Your task to perform on an android device: turn on airplane mode Image 0: 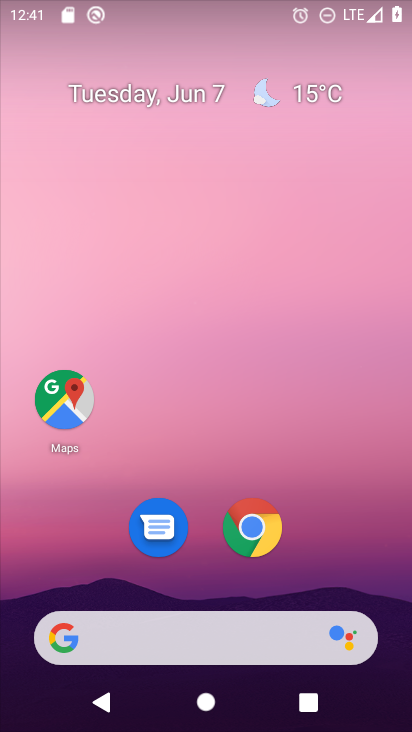
Step 0: drag from (335, 534) to (335, 156)
Your task to perform on an android device: turn on airplane mode Image 1: 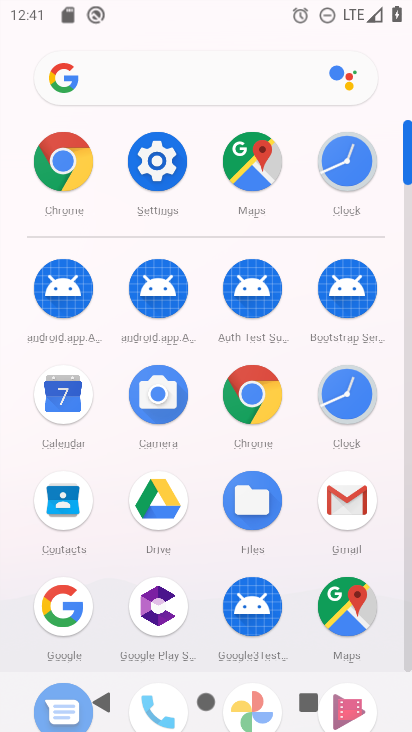
Step 1: click (170, 167)
Your task to perform on an android device: turn on airplane mode Image 2: 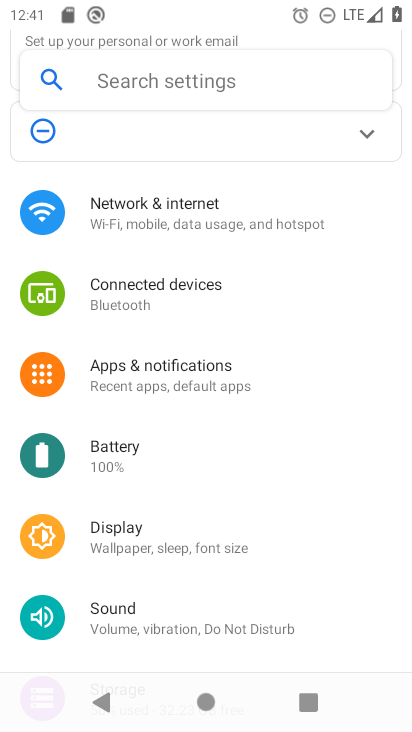
Step 2: drag from (351, 439) to (349, 317)
Your task to perform on an android device: turn on airplane mode Image 3: 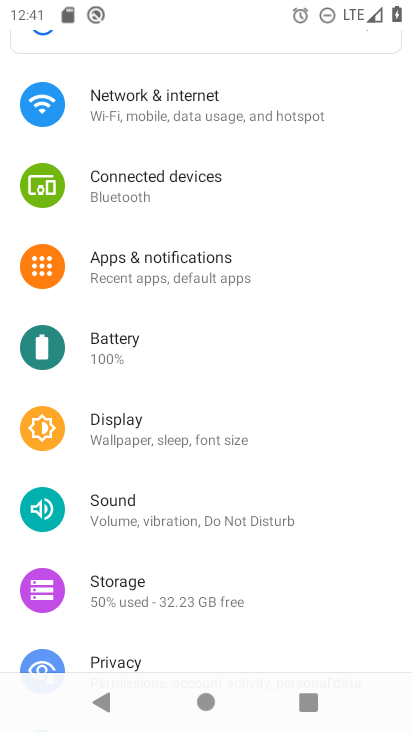
Step 3: drag from (353, 482) to (349, 345)
Your task to perform on an android device: turn on airplane mode Image 4: 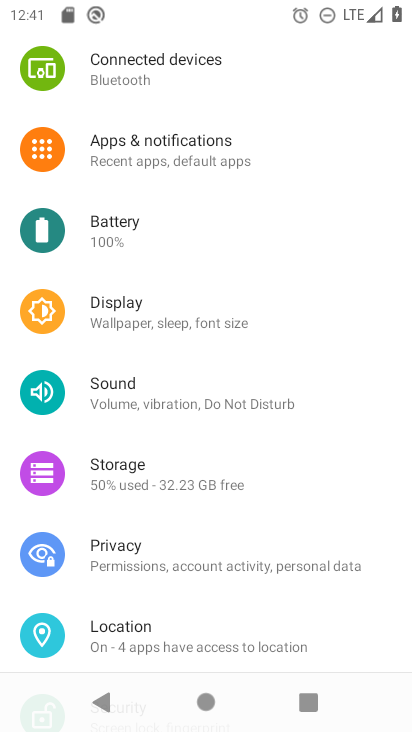
Step 4: drag from (347, 510) to (351, 332)
Your task to perform on an android device: turn on airplane mode Image 5: 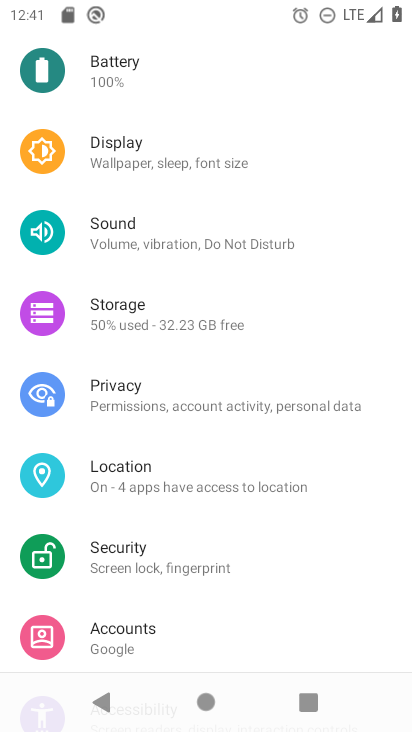
Step 5: drag from (357, 483) to (360, 294)
Your task to perform on an android device: turn on airplane mode Image 6: 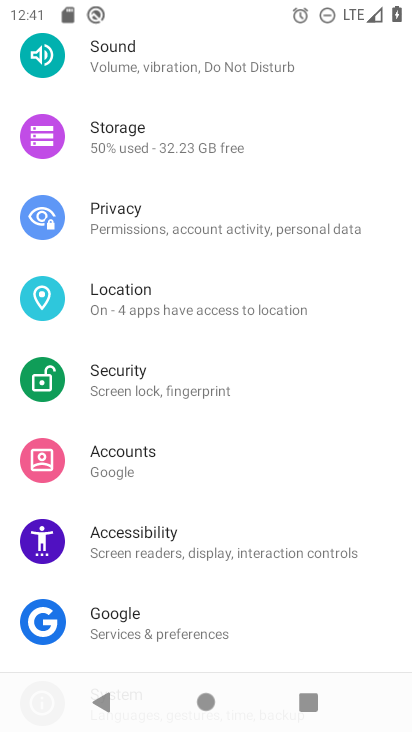
Step 6: drag from (356, 470) to (341, 283)
Your task to perform on an android device: turn on airplane mode Image 7: 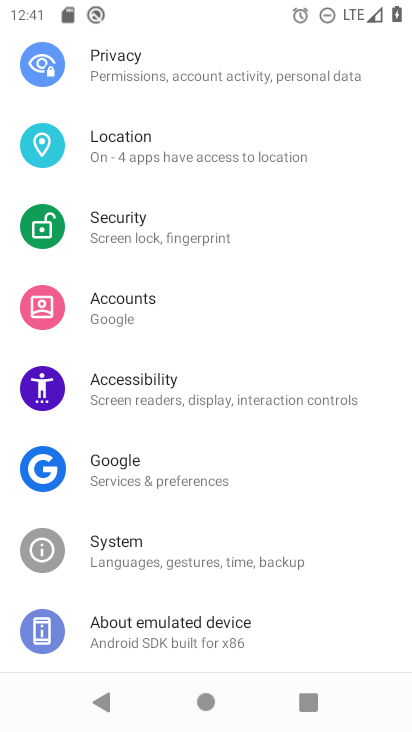
Step 7: drag from (340, 507) to (352, 275)
Your task to perform on an android device: turn on airplane mode Image 8: 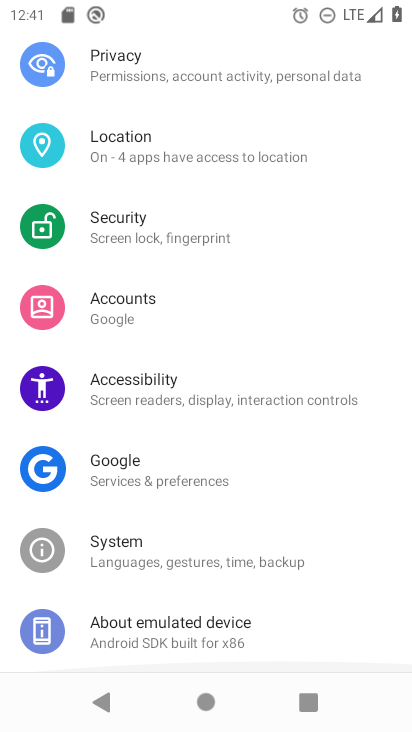
Step 8: drag from (360, 211) to (362, 419)
Your task to perform on an android device: turn on airplane mode Image 9: 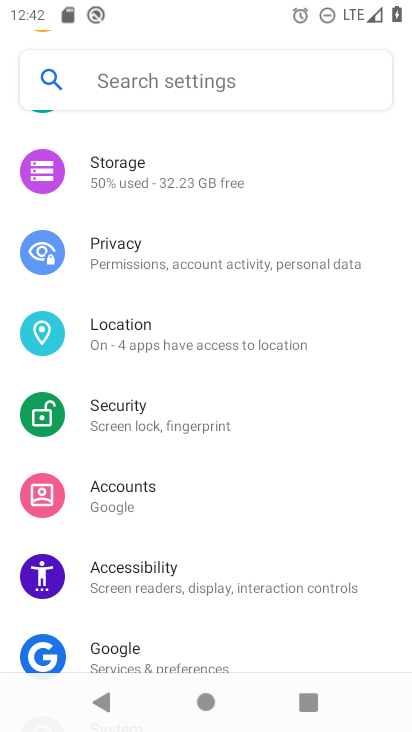
Step 9: drag from (348, 182) to (346, 424)
Your task to perform on an android device: turn on airplane mode Image 10: 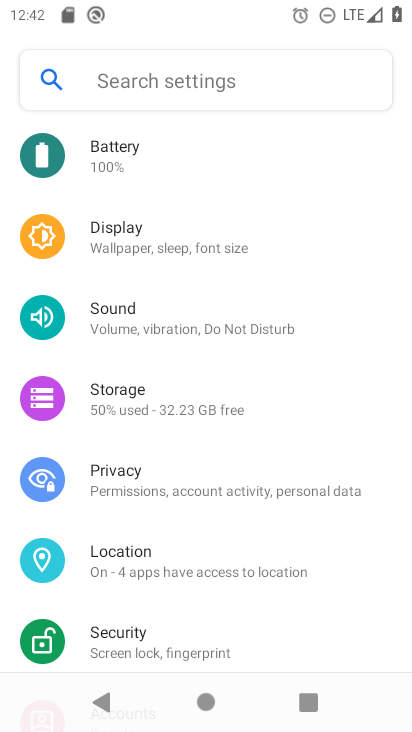
Step 10: drag from (335, 170) to (346, 390)
Your task to perform on an android device: turn on airplane mode Image 11: 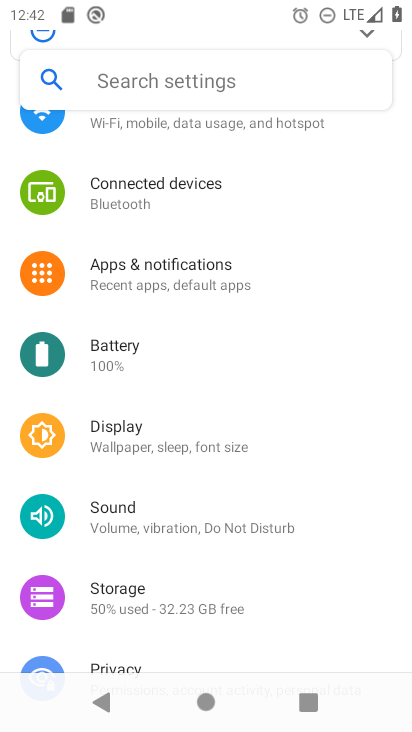
Step 11: drag from (327, 180) to (338, 375)
Your task to perform on an android device: turn on airplane mode Image 12: 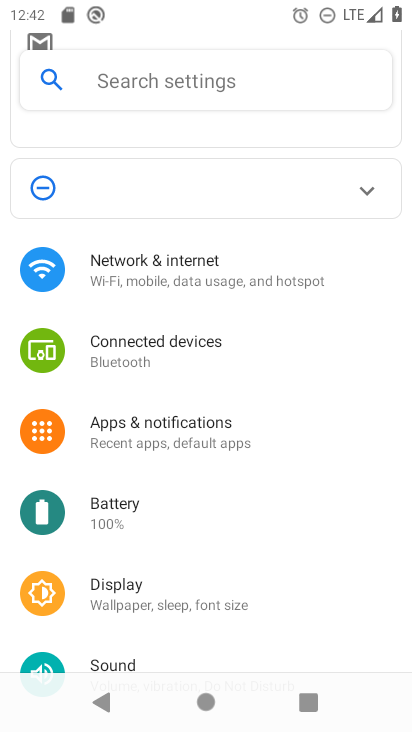
Step 12: drag from (326, 461) to (334, 334)
Your task to perform on an android device: turn on airplane mode Image 13: 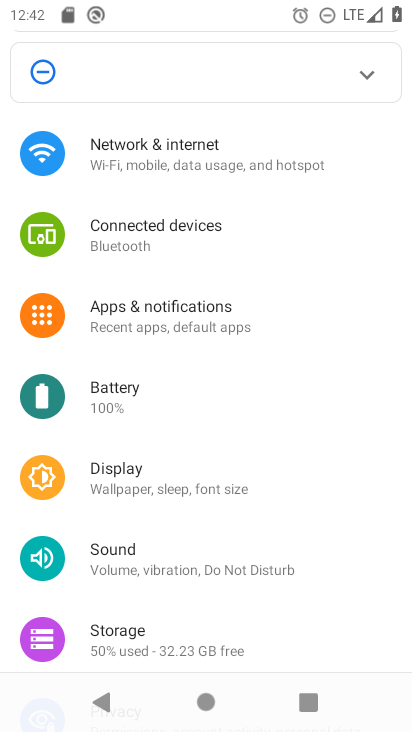
Step 13: drag from (332, 463) to (330, 347)
Your task to perform on an android device: turn on airplane mode Image 14: 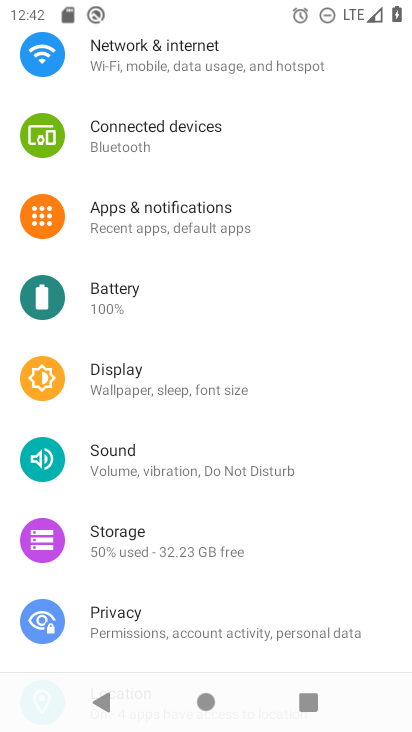
Step 14: drag from (321, 171) to (322, 369)
Your task to perform on an android device: turn on airplane mode Image 15: 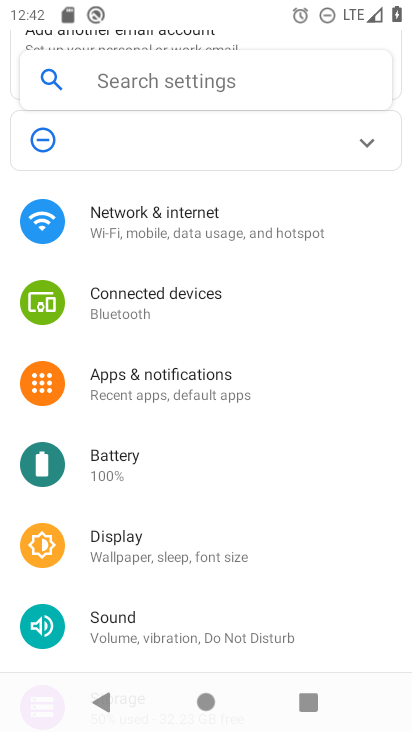
Step 15: click (233, 223)
Your task to perform on an android device: turn on airplane mode Image 16: 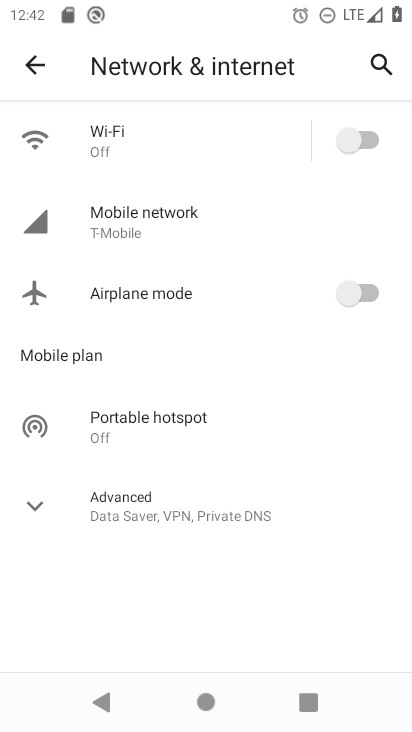
Step 16: click (338, 300)
Your task to perform on an android device: turn on airplane mode Image 17: 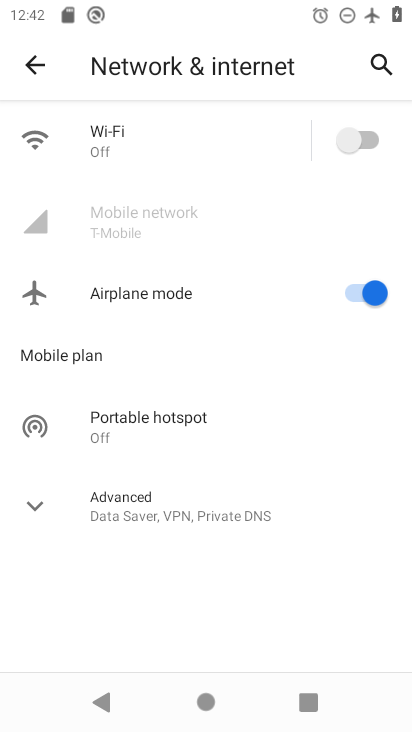
Step 17: task complete